Your task to perform on an android device: turn vacation reply on in the gmail app Image 0: 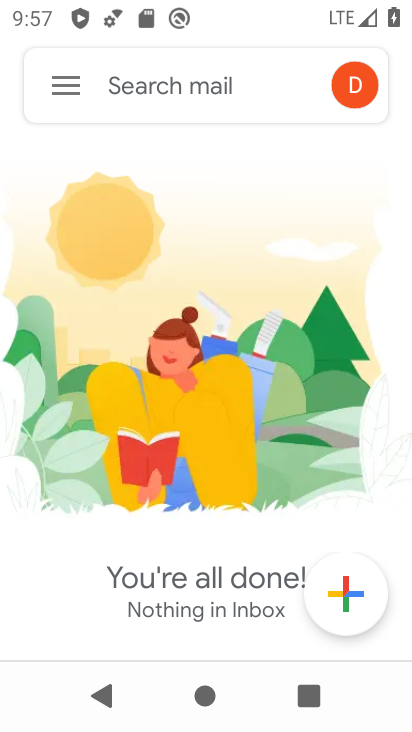
Step 0: drag from (165, 621) to (231, 327)
Your task to perform on an android device: turn vacation reply on in the gmail app Image 1: 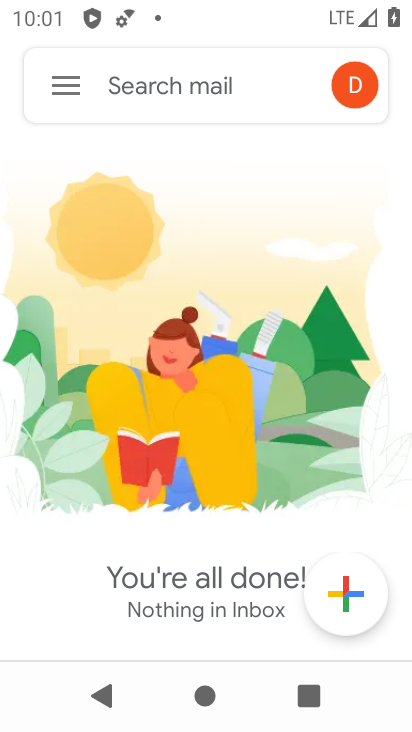
Step 1: drag from (83, 611) to (103, 511)
Your task to perform on an android device: turn vacation reply on in the gmail app Image 2: 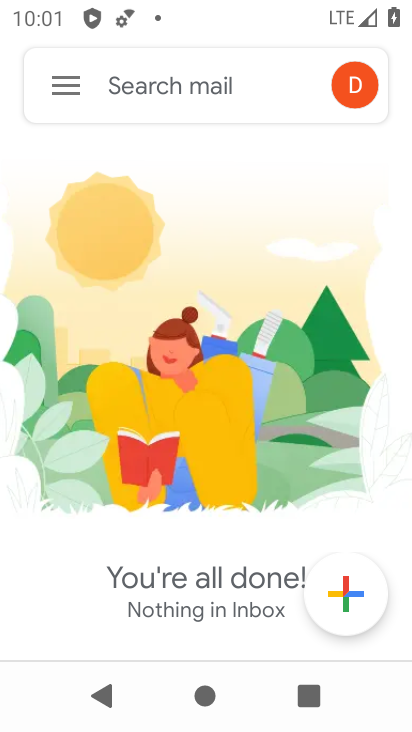
Step 2: click (52, 87)
Your task to perform on an android device: turn vacation reply on in the gmail app Image 3: 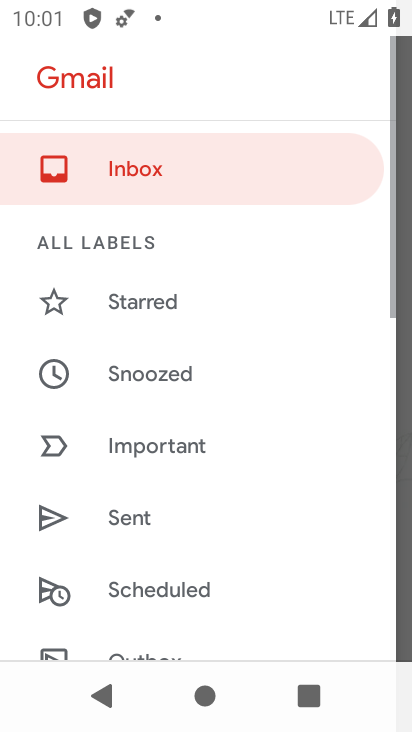
Step 3: drag from (190, 537) to (271, 14)
Your task to perform on an android device: turn vacation reply on in the gmail app Image 4: 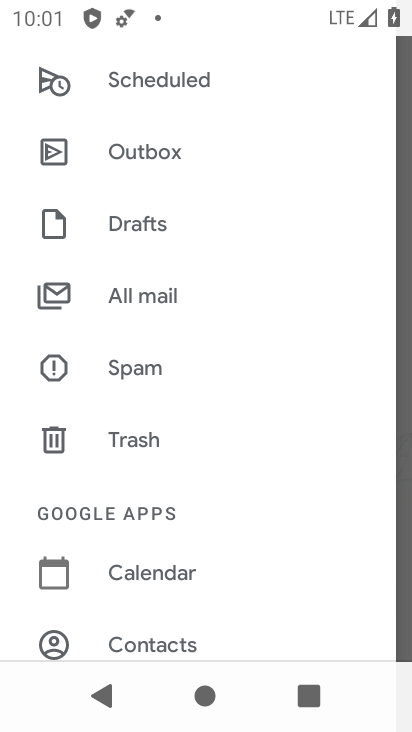
Step 4: drag from (161, 614) to (223, 45)
Your task to perform on an android device: turn vacation reply on in the gmail app Image 5: 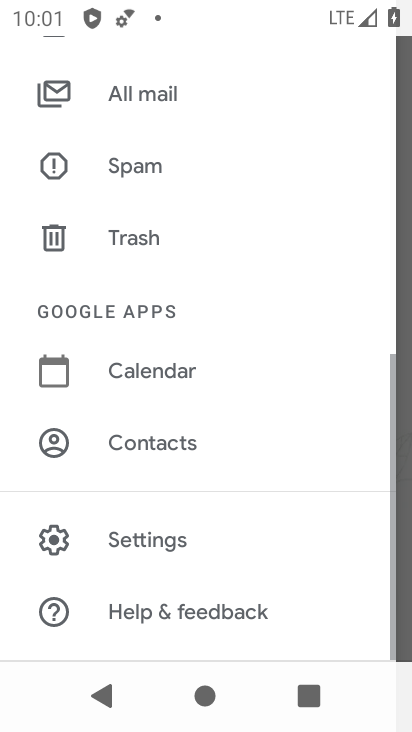
Step 5: click (143, 535)
Your task to perform on an android device: turn vacation reply on in the gmail app Image 6: 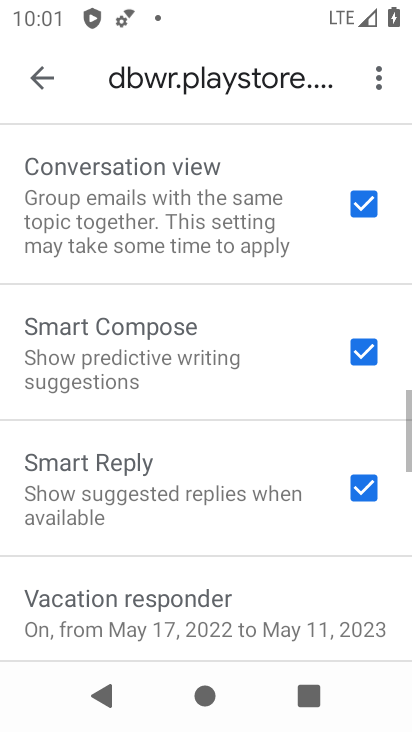
Step 6: drag from (163, 525) to (277, 85)
Your task to perform on an android device: turn vacation reply on in the gmail app Image 7: 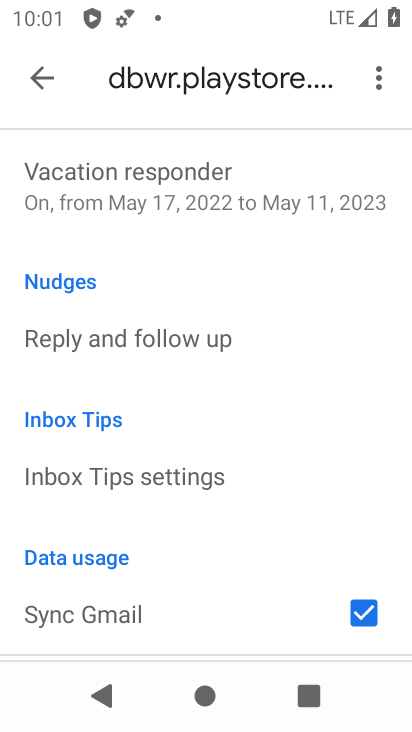
Step 7: drag from (200, 359) to (293, 139)
Your task to perform on an android device: turn vacation reply on in the gmail app Image 8: 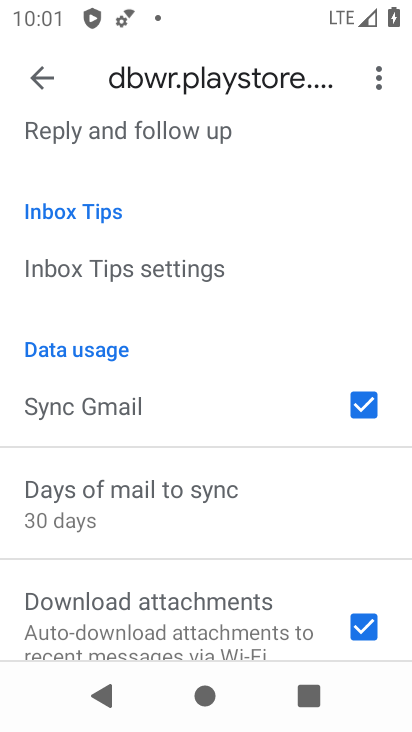
Step 8: drag from (202, 229) to (289, 633)
Your task to perform on an android device: turn vacation reply on in the gmail app Image 9: 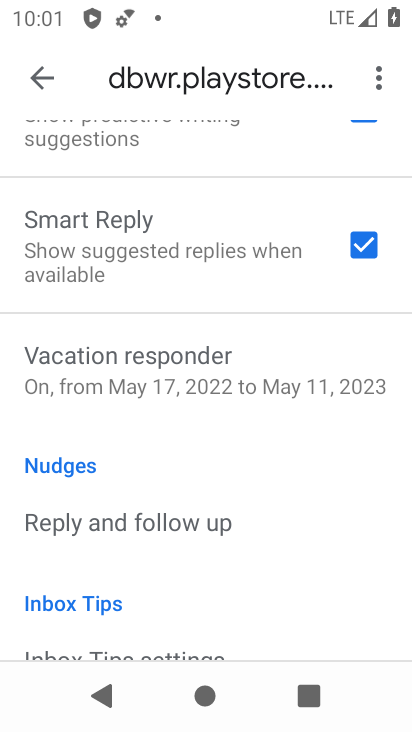
Step 9: click (205, 383)
Your task to perform on an android device: turn vacation reply on in the gmail app Image 10: 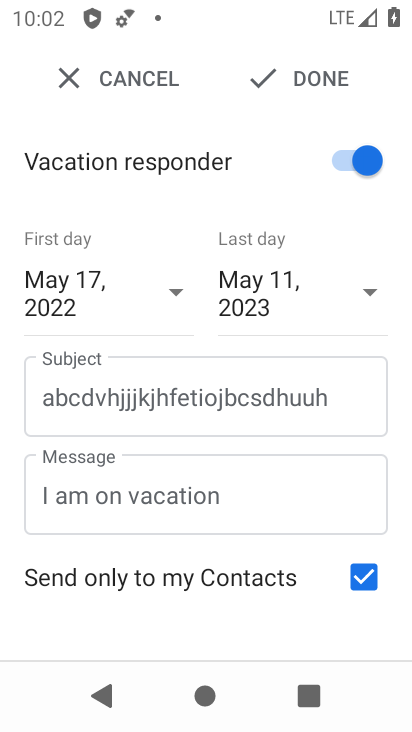
Step 10: click (344, 79)
Your task to perform on an android device: turn vacation reply on in the gmail app Image 11: 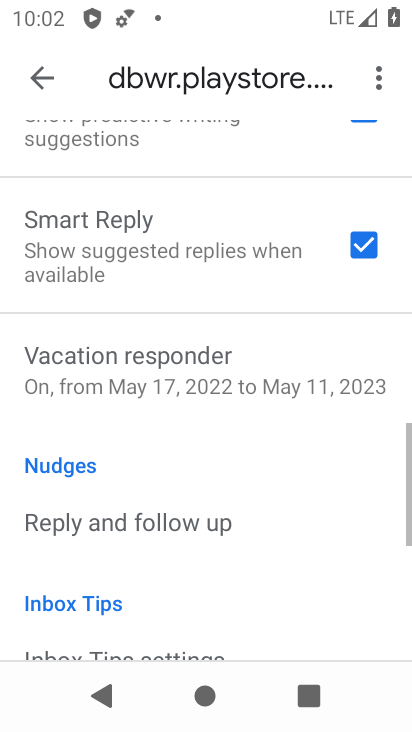
Step 11: task complete